Your task to perform on an android device: clear history in the chrome app Image 0: 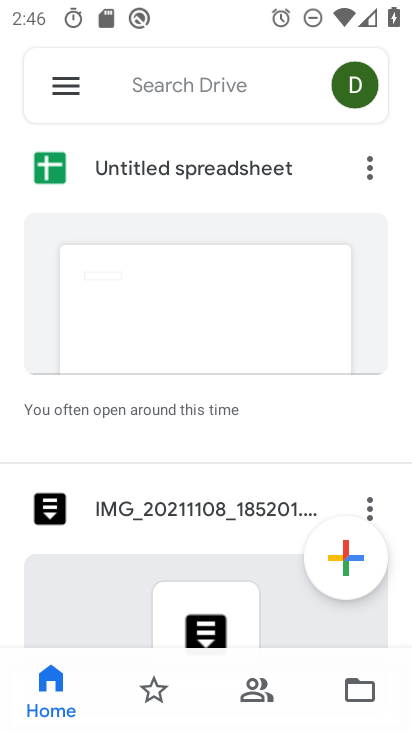
Step 0: press home button
Your task to perform on an android device: clear history in the chrome app Image 1: 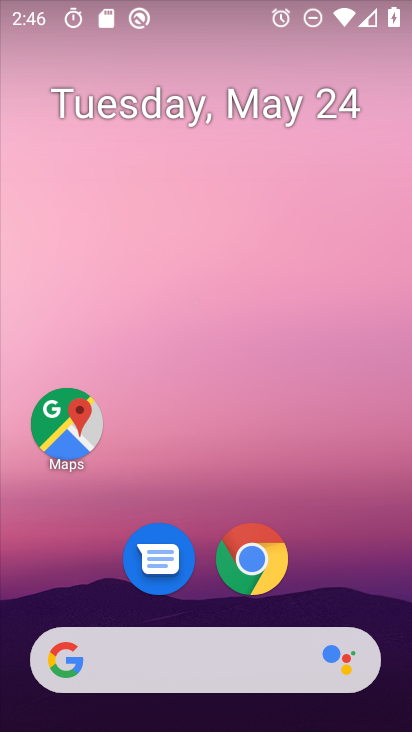
Step 1: click (259, 546)
Your task to perform on an android device: clear history in the chrome app Image 2: 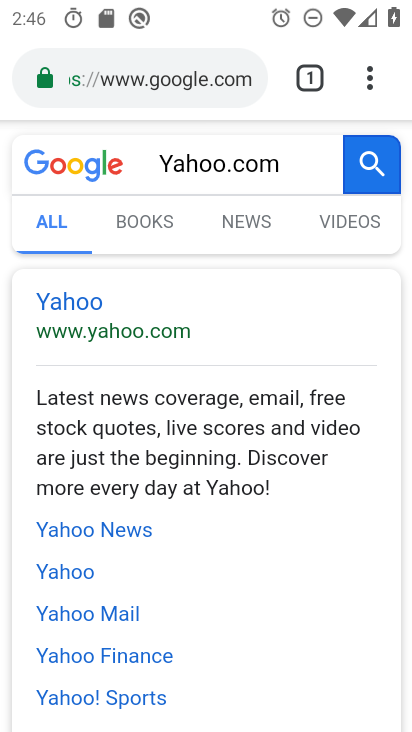
Step 2: click (368, 79)
Your task to perform on an android device: clear history in the chrome app Image 3: 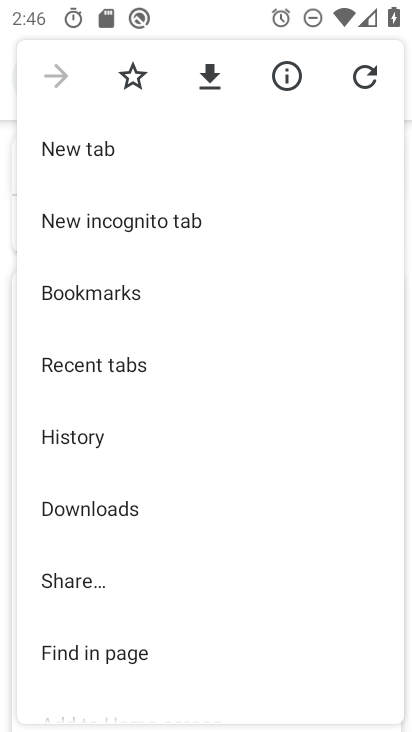
Step 3: click (72, 438)
Your task to perform on an android device: clear history in the chrome app Image 4: 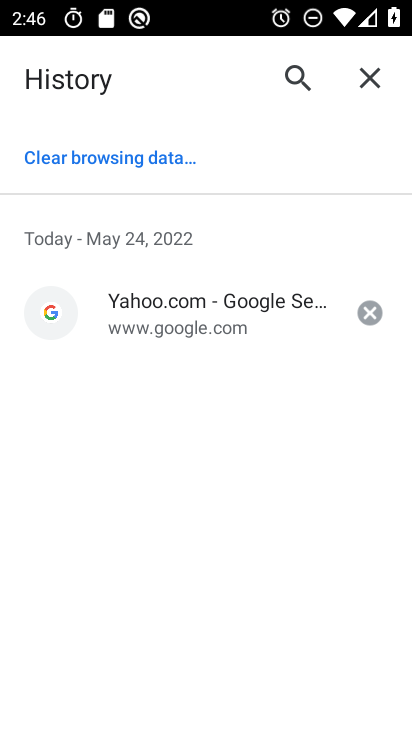
Step 4: click (145, 160)
Your task to perform on an android device: clear history in the chrome app Image 5: 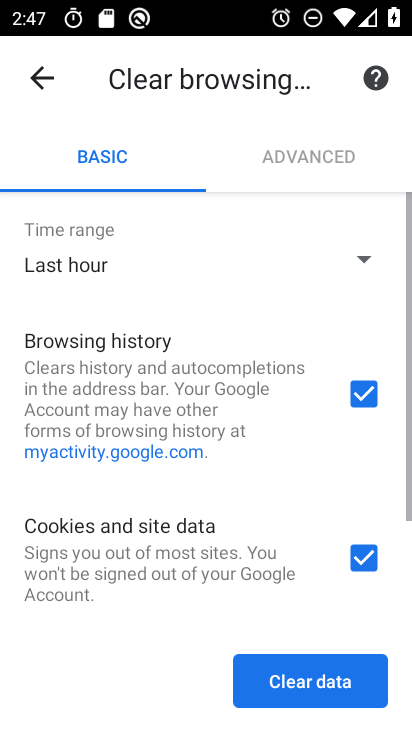
Step 5: click (301, 672)
Your task to perform on an android device: clear history in the chrome app Image 6: 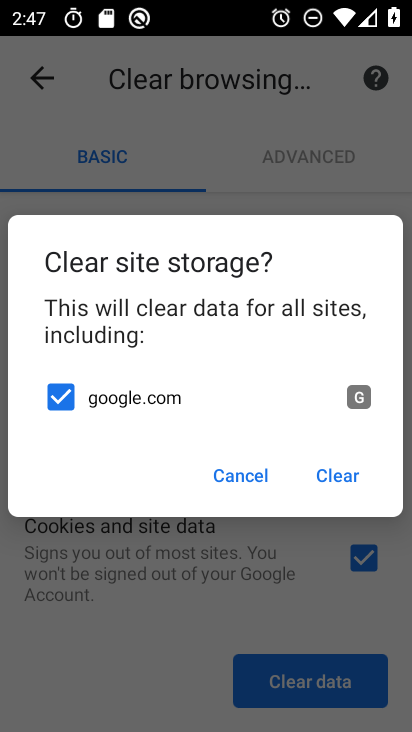
Step 6: click (334, 470)
Your task to perform on an android device: clear history in the chrome app Image 7: 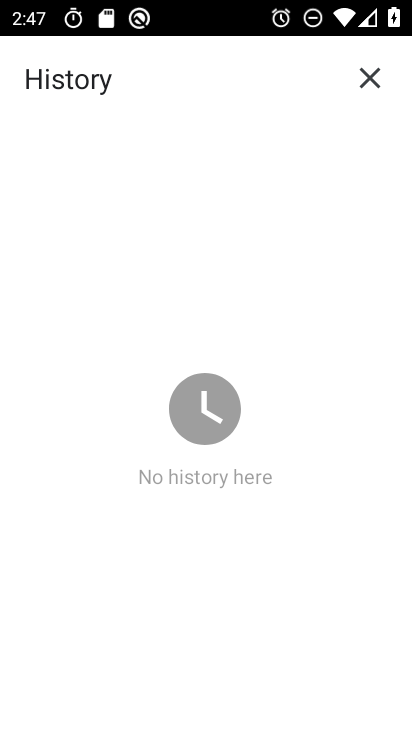
Step 7: task complete